Your task to perform on an android device: toggle javascript in the chrome app Image 0: 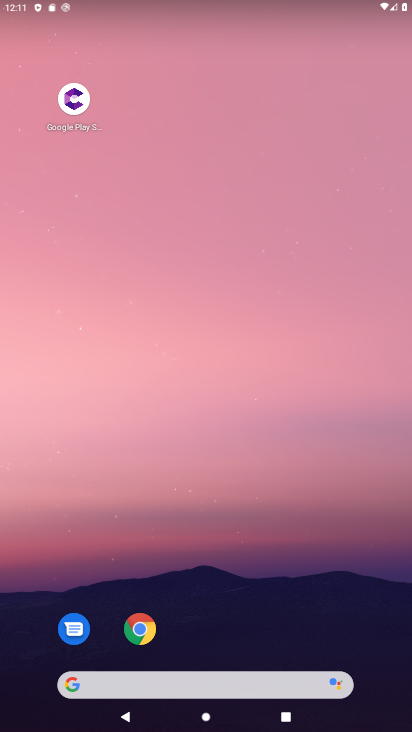
Step 0: drag from (200, 654) to (184, 108)
Your task to perform on an android device: toggle javascript in the chrome app Image 1: 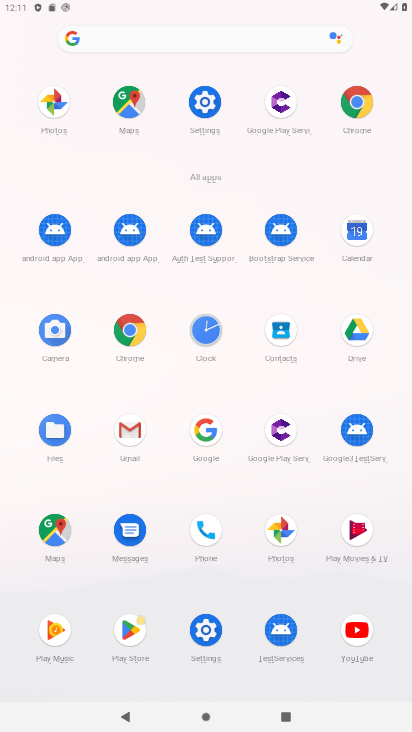
Step 1: click (363, 102)
Your task to perform on an android device: toggle javascript in the chrome app Image 2: 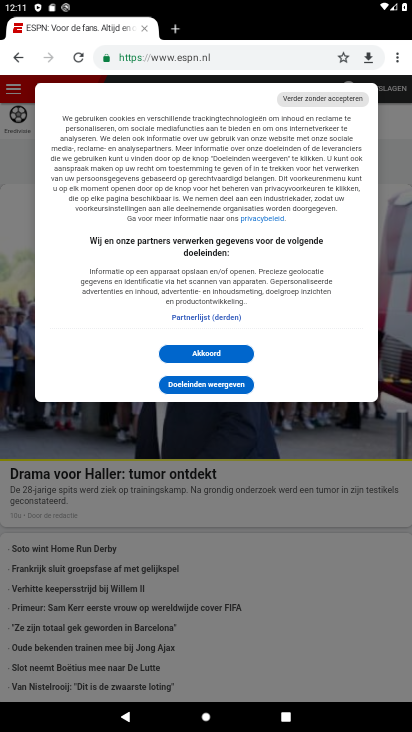
Step 2: drag from (395, 58) to (290, 383)
Your task to perform on an android device: toggle javascript in the chrome app Image 3: 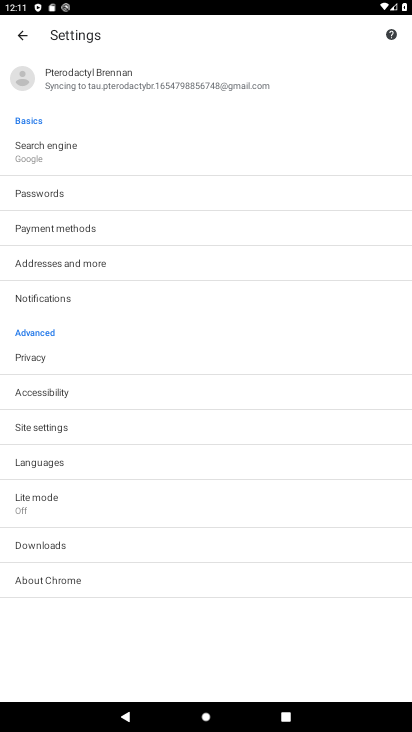
Step 3: click (66, 430)
Your task to perform on an android device: toggle javascript in the chrome app Image 4: 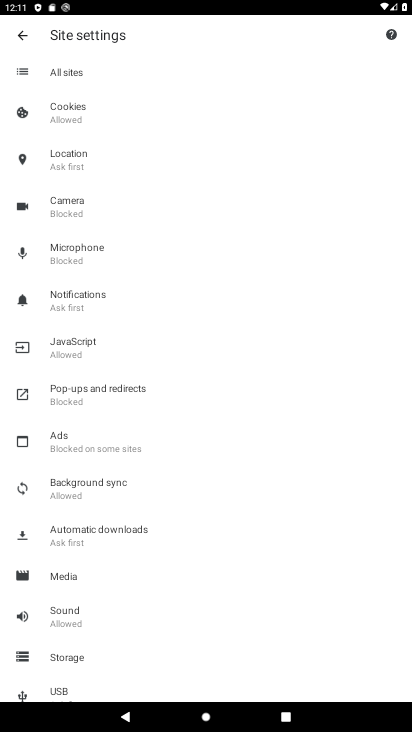
Step 4: click (101, 342)
Your task to perform on an android device: toggle javascript in the chrome app Image 5: 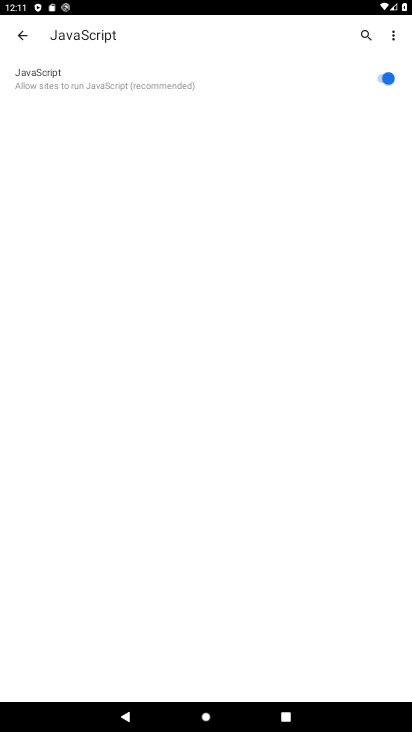
Step 5: click (382, 76)
Your task to perform on an android device: toggle javascript in the chrome app Image 6: 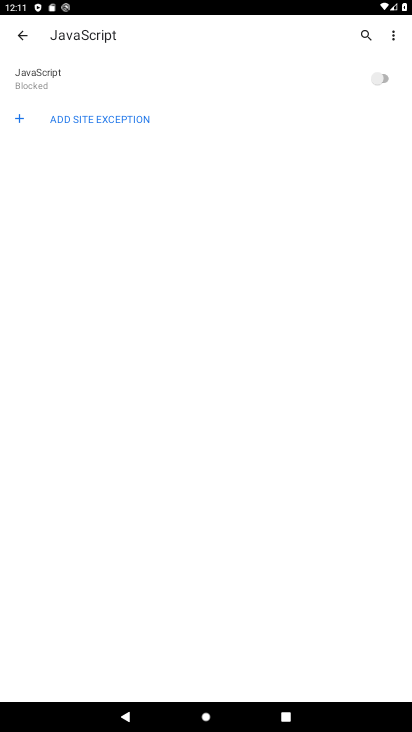
Step 6: task complete